Your task to perform on an android device: turn on improve location accuracy Image 0: 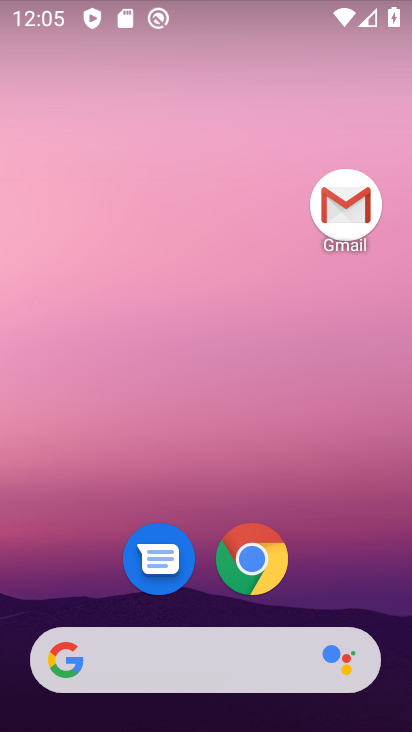
Step 0: drag from (337, 548) to (346, 98)
Your task to perform on an android device: turn on improve location accuracy Image 1: 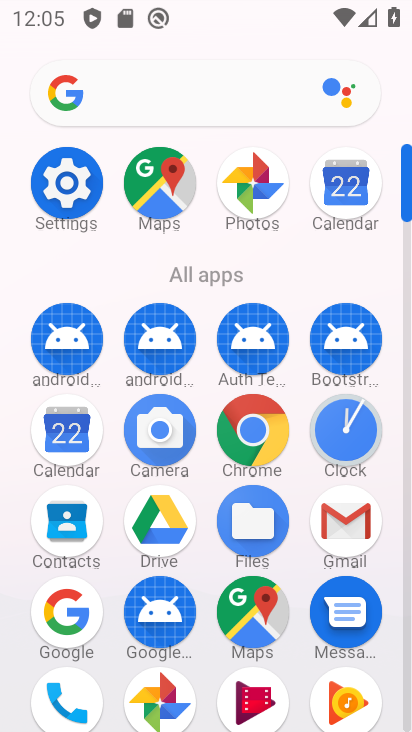
Step 1: click (56, 194)
Your task to perform on an android device: turn on improve location accuracy Image 2: 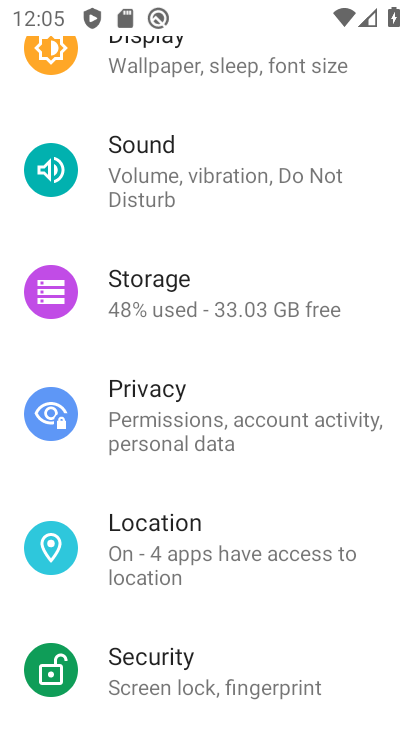
Step 2: drag from (380, 285) to (389, 384)
Your task to perform on an android device: turn on improve location accuracy Image 3: 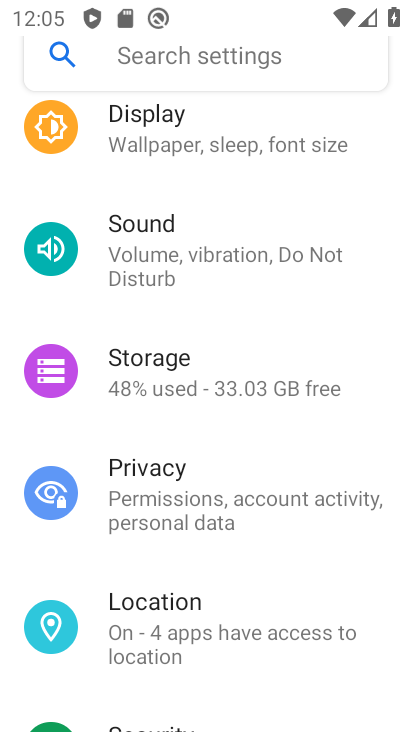
Step 3: drag from (380, 256) to (374, 401)
Your task to perform on an android device: turn on improve location accuracy Image 4: 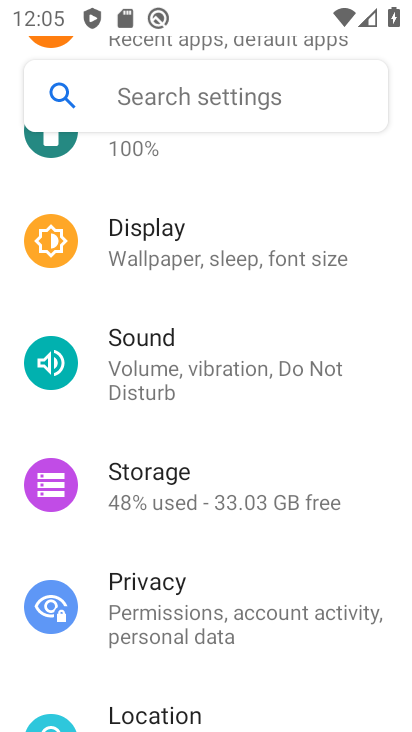
Step 4: drag from (375, 315) to (358, 472)
Your task to perform on an android device: turn on improve location accuracy Image 5: 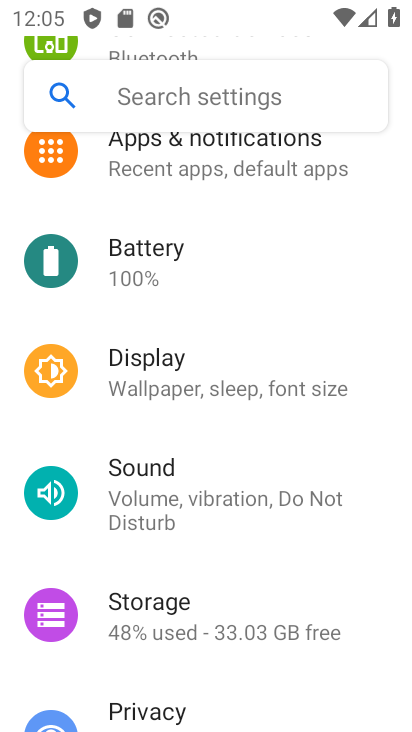
Step 5: drag from (379, 291) to (384, 451)
Your task to perform on an android device: turn on improve location accuracy Image 6: 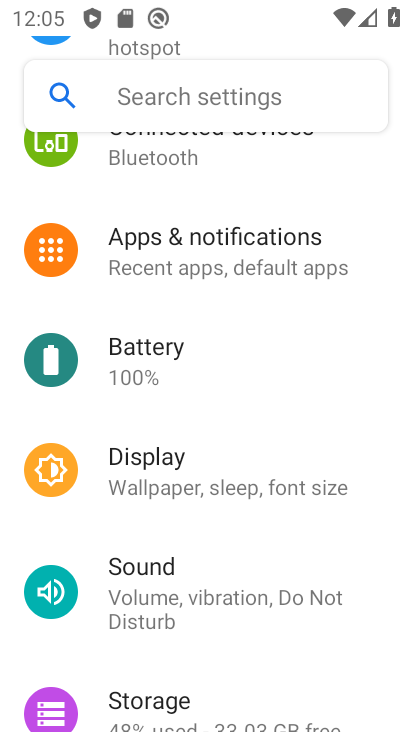
Step 6: drag from (383, 559) to (379, 412)
Your task to perform on an android device: turn on improve location accuracy Image 7: 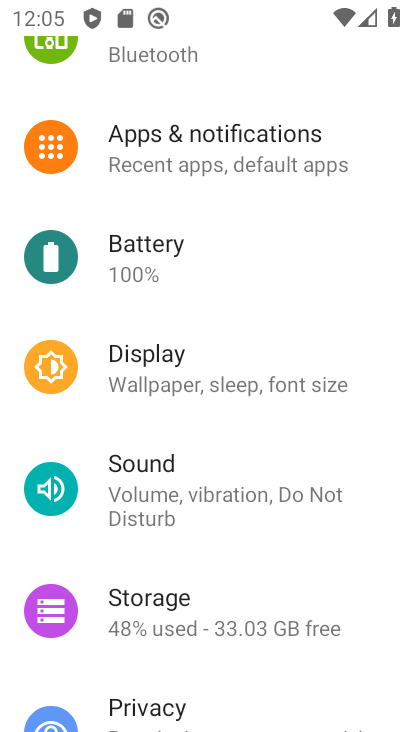
Step 7: drag from (380, 562) to (392, 405)
Your task to perform on an android device: turn on improve location accuracy Image 8: 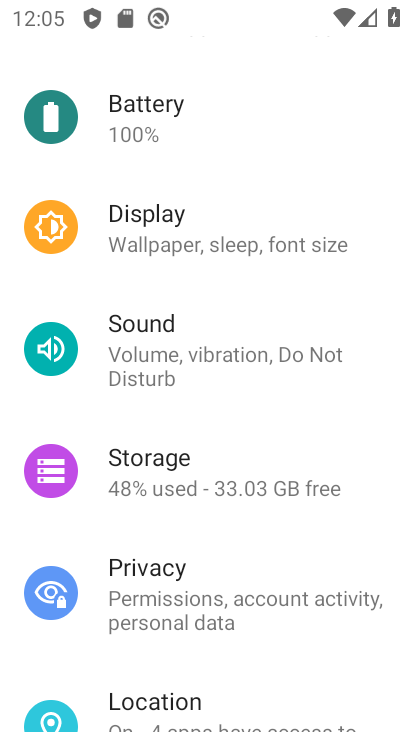
Step 8: drag from (368, 531) to (367, 405)
Your task to perform on an android device: turn on improve location accuracy Image 9: 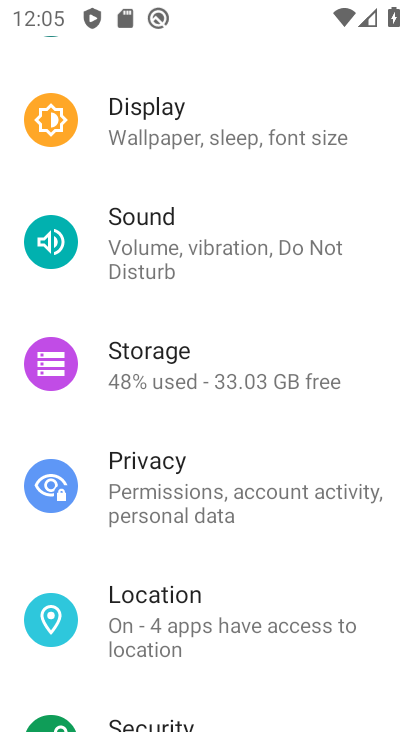
Step 9: drag from (362, 577) to (364, 407)
Your task to perform on an android device: turn on improve location accuracy Image 10: 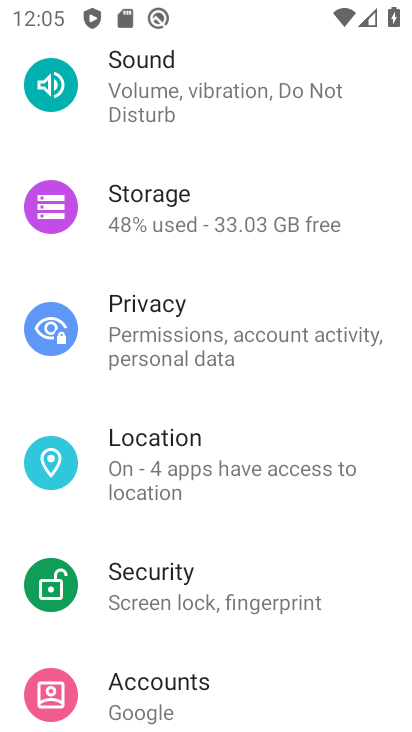
Step 10: drag from (354, 619) to (346, 432)
Your task to perform on an android device: turn on improve location accuracy Image 11: 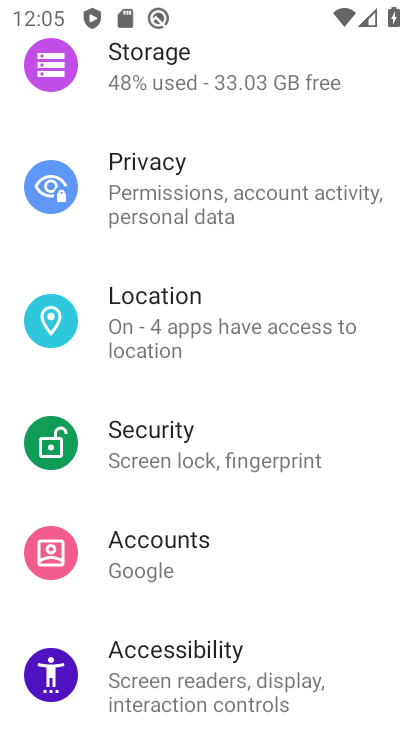
Step 11: drag from (350, 635) to (348, 485)
Your task to perform on an android device: turn on improve location accuracy Image 12: 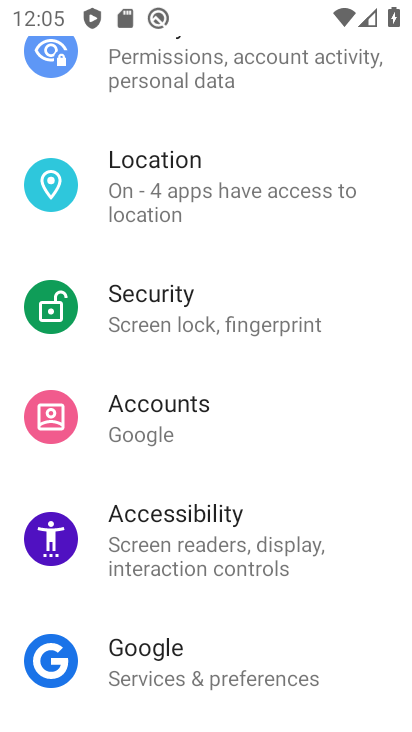
Step 12: drag from (361, 649) to (364, 530)
Your task to perform on an android device: turn on improve location accuracy Image 13: 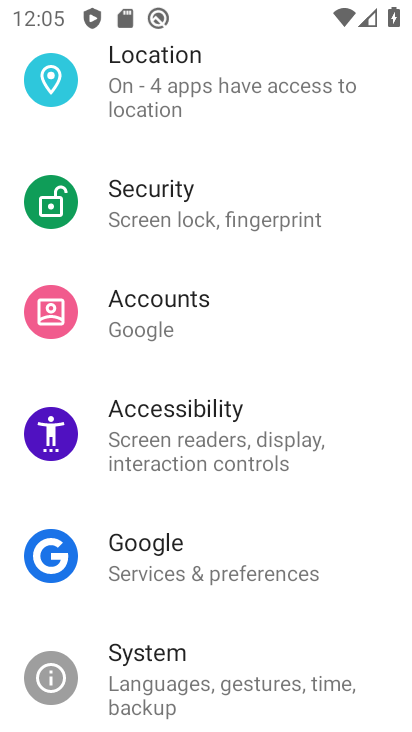
Step 13: click (269, 90)
Your task to perform on an android device: turn on improve location accuracy Image 14: 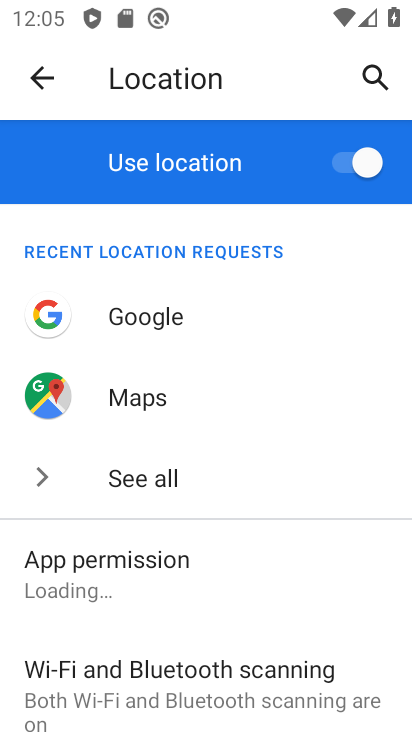
Step 14: drag from (281, 587) to (301, 374)
Your task to perform on an android device: turn on improve location accuracy Image 15: 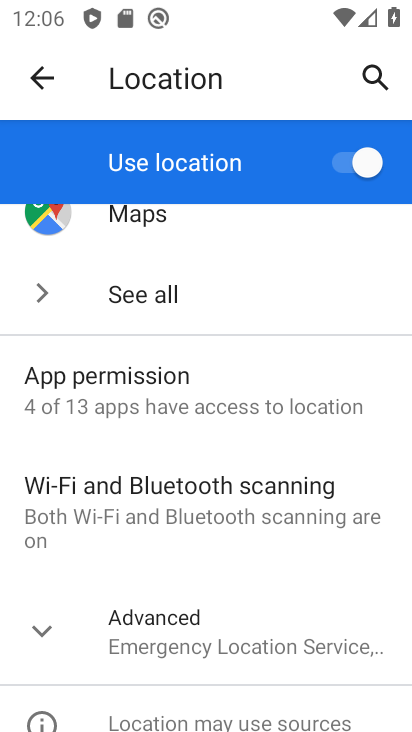
Step 15: drag from (298, 588) to (303, 426)
Your task to perform on an android device: turn on improve location accuracy Image 16: 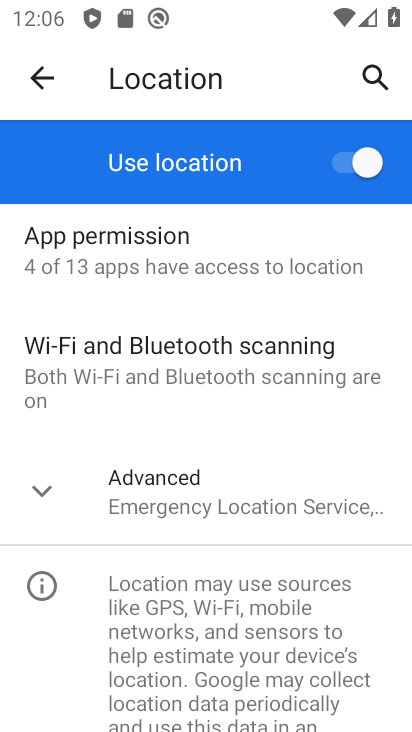
Step 16: click (263, 506)
Your task to perform on an android device: turn on improve location accuracy Image 17: 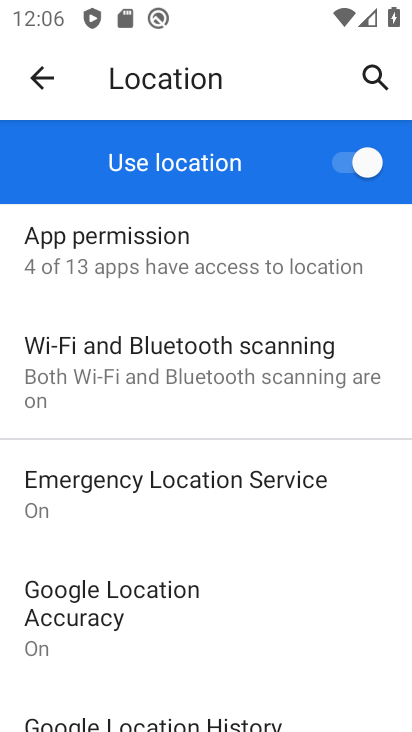
Step 17: drag from (277, 626) to (277, 494)
Your task to perform on an android device: turn on improve location accuracy Image 18: 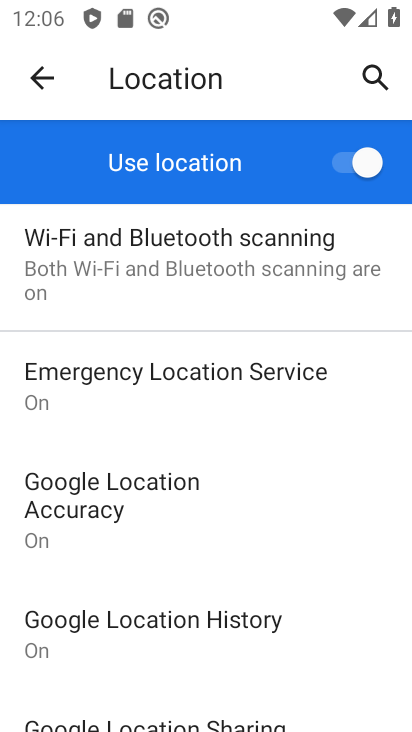
Step 18: drag from (331, 658) to (343, 491)
Your task to perform on an android device: turn on improve location accuracy Image 19: 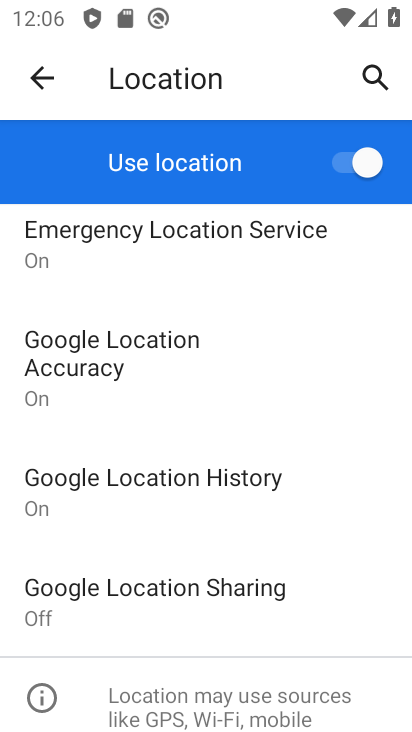
Step 19: drag from (344, 592) to (348, 497)
Your task to perform on an android device: turn on improve location accuracy Image 20: 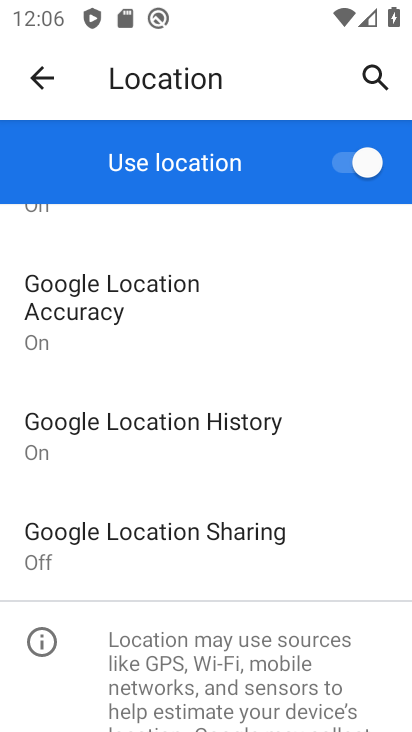
Step 20: click (115, 310)
Your task to perform on an android device: turn on improve location accuracy Image 21: 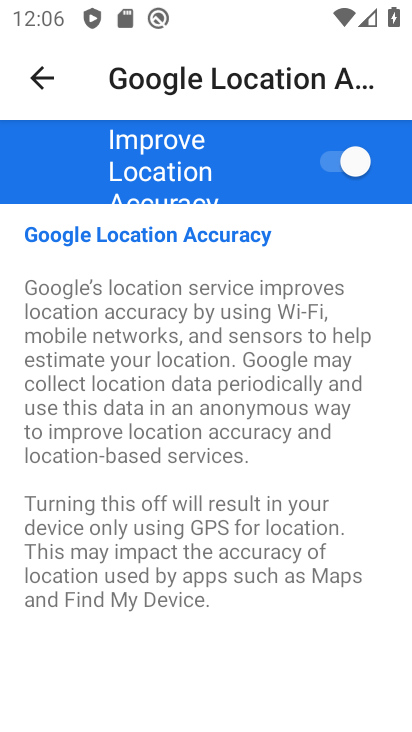
Step 21: task complete